Your task to perform on an android device: turn on javascript in the chrome app Image 0: 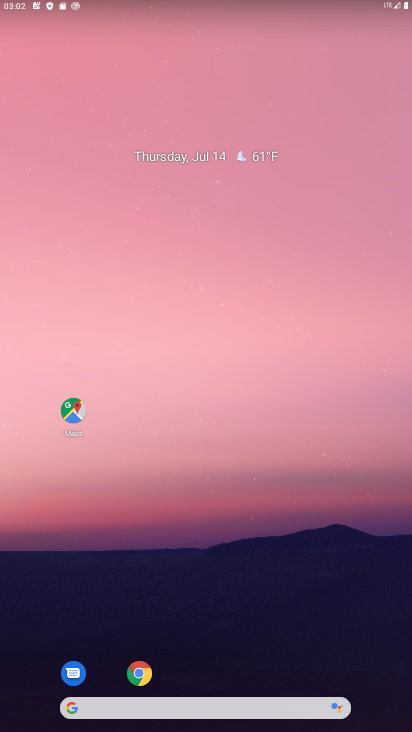
Step 0: drag from (258, 622) to (220, 180)
Your task to perform on an android device: turn on javascript in the chrome app Image 1: 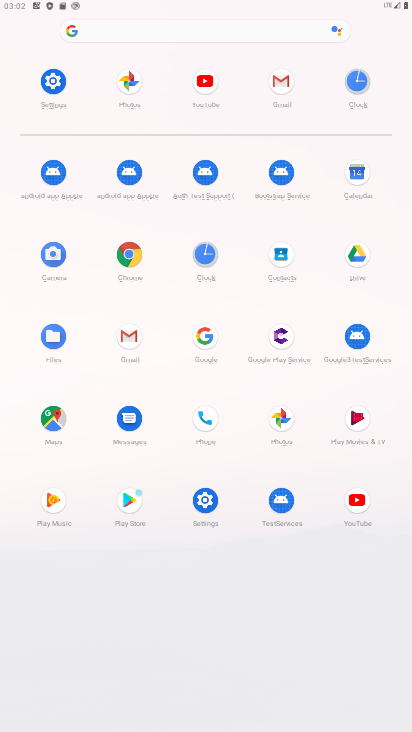
Step 1: click (136, 265)
Your task to perform on an android device: turn on javascript in the chrome app Image 2: 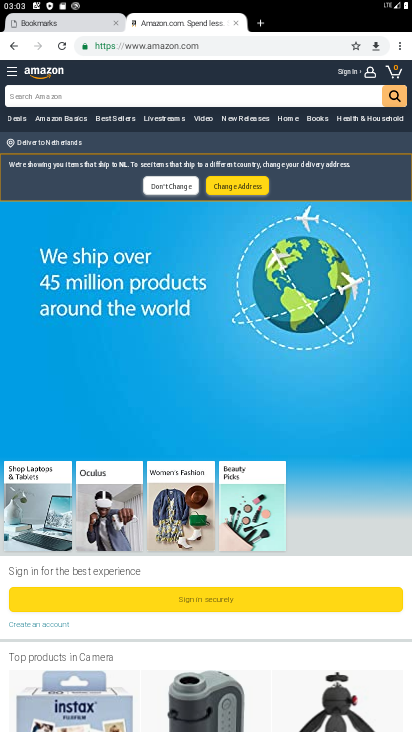
Step 2: click (393, 48)
Your task to perform on an android device: turn on javascript in the chrome app Image 3: 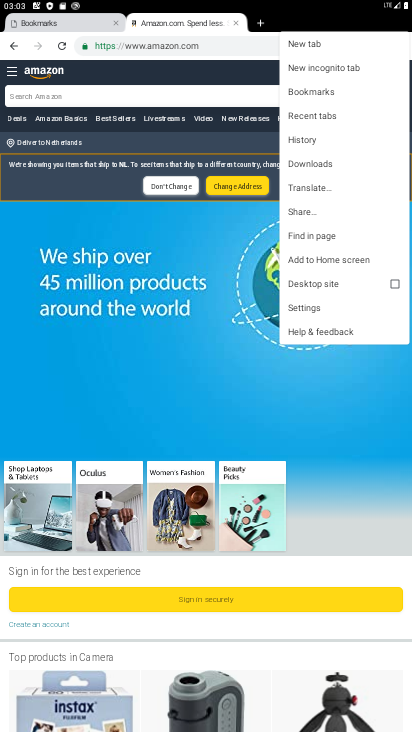
Step 3: click (332, 302)
Your task to perform on an android device: turn on javascript in the chrome app Image 4: 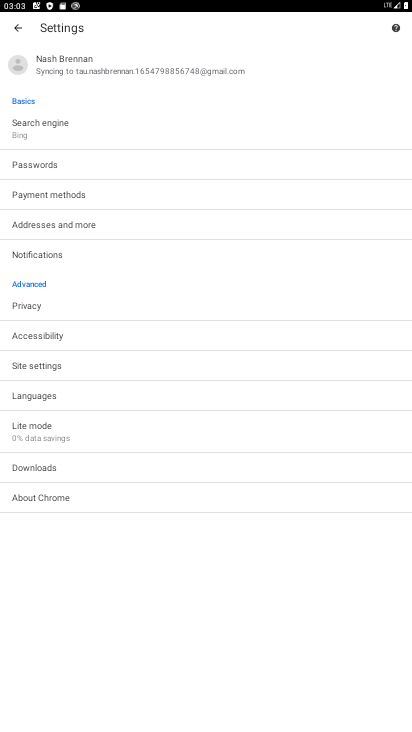
Step 4: click (117, 363)
Your task to perform on an android device: turn on javascript in the chrome app Image 5: 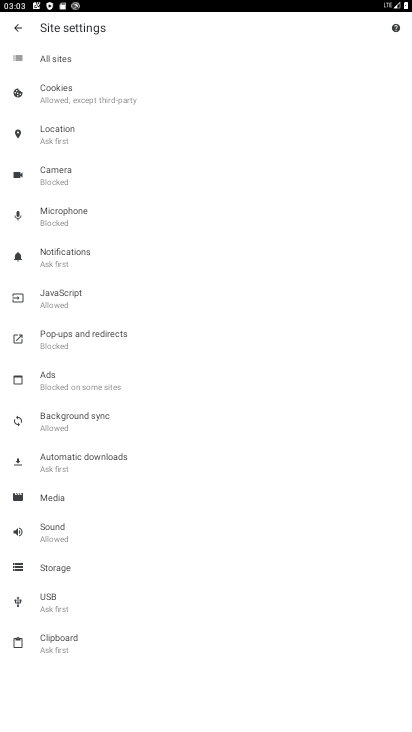
Step 5: click (66, 289)
Your task to perform on an android device: turn on javascript in the chrome app Image 6: 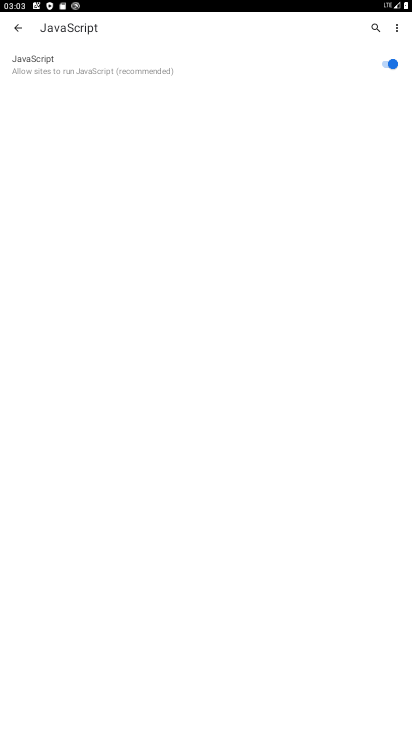
Step 6: task complete